Your task to perform on an android device: toggle data saver in the chrome app Image 0: 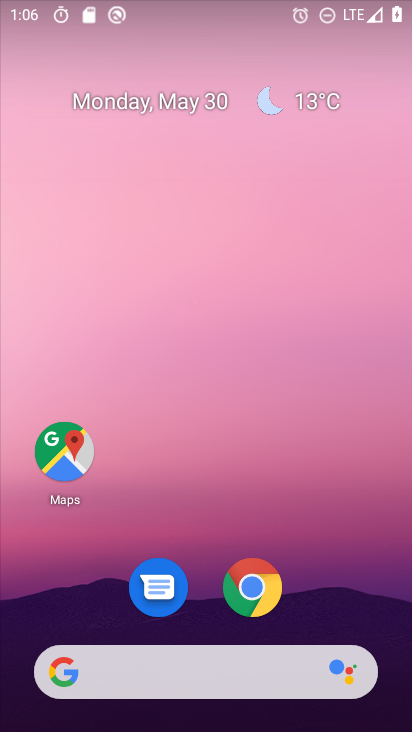
Step 0: click (247, 592)
Your task to perform on an android device: toggle data saver in the chrome app Image 1: 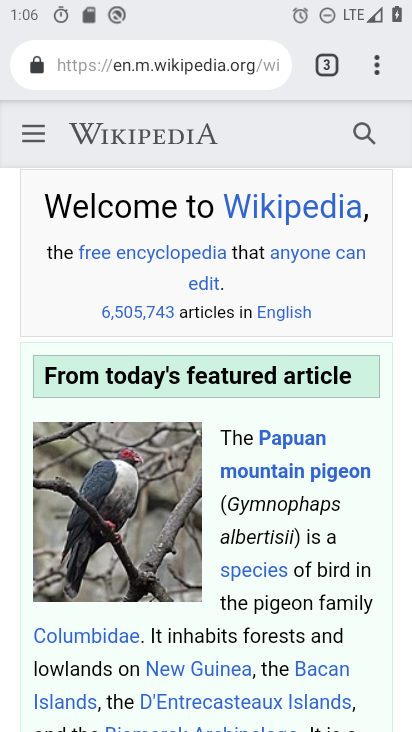
Step 1: drag from (381, 71) to (213, 635)
Your task to perform on an android device: toggle data saver in the chrome app Image 2: 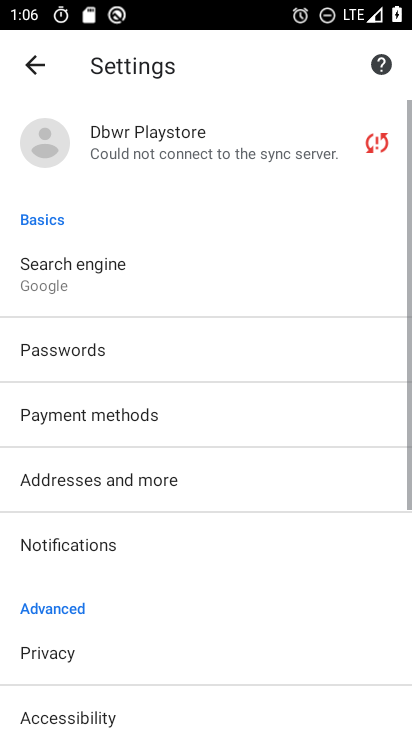
Step 2: drag from (125, 610) to (72, 215)
Your task to perform on an android device: toggle data saver in the chrome app Image 3: 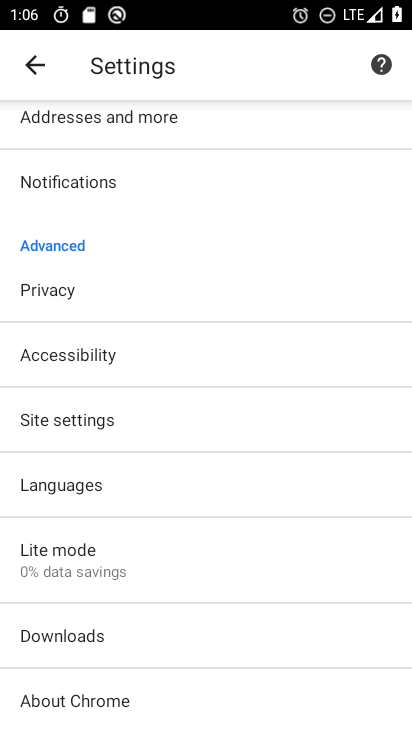
Step 3: click (135, 554)
Your task to perform on an android device: toggle data saver in the chrome app Image 4: 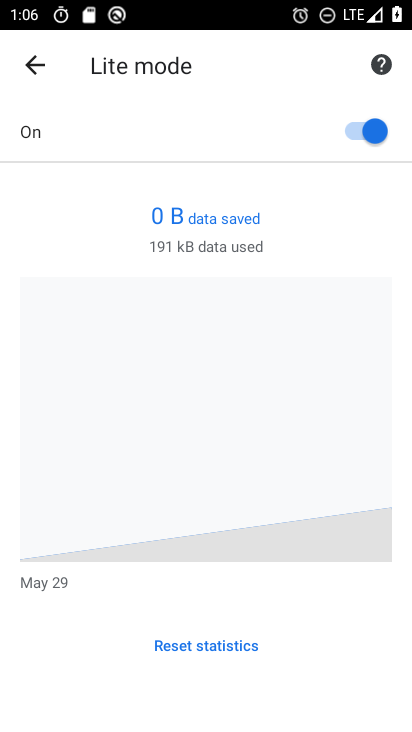
Step 4: click (356, 150)
Your task to perform on an android device: toggle data saver in the chrome app Image 5: 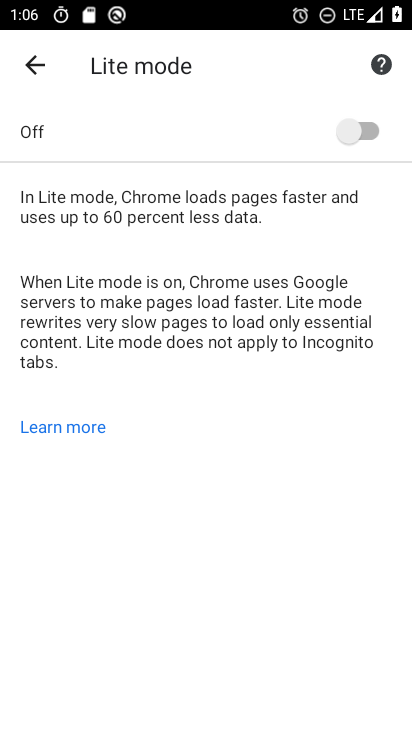
Step 5: task complete